Your task to perform on an android device: Go to Google Image 0: 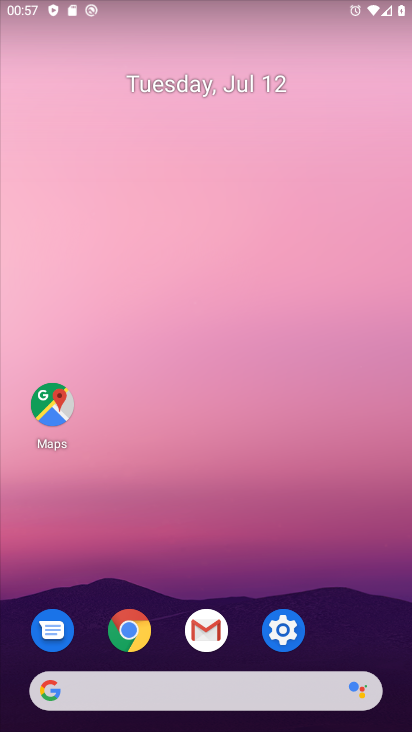
Step 0: click (53, 694)
Your task to perform on an android device: Go to Google Image 1: 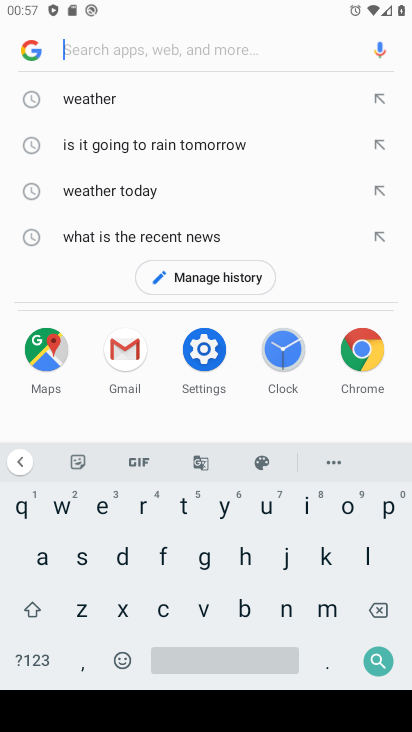
Step 1: click (25, 45)
Your task to perform on an android device: Go to Google Image 2: 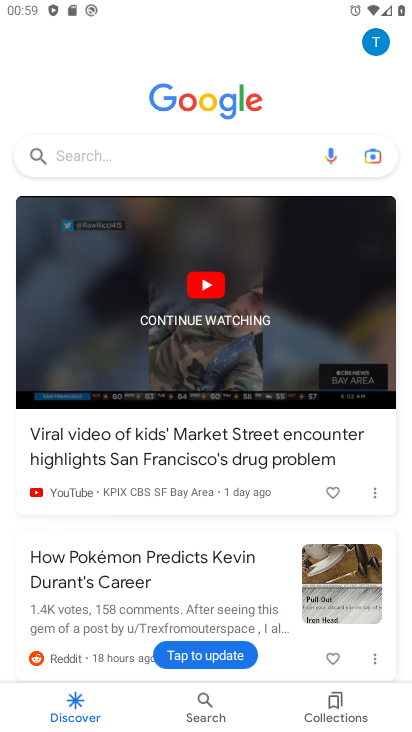
Step 2: task complete